Your task to perform on an android device: Search for the best rated kitchen reno kits on Lowes.com Image 0: 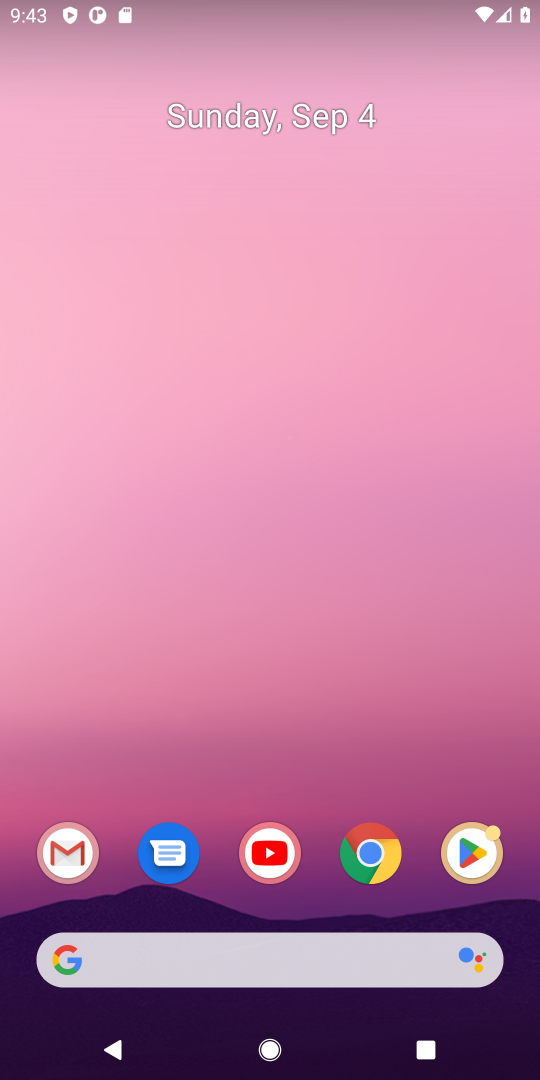
Step 0: click (374, 866)
Your task to perform on an android device: Search for the best rated kitchen reno kits on Lowes.com Image 1: 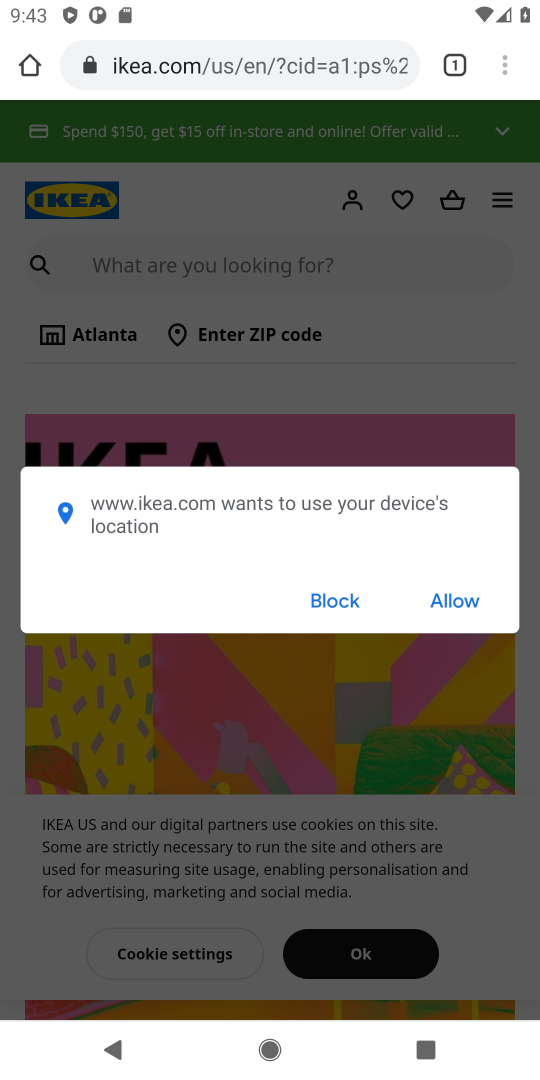
Step 1: click (172, 69)
Your task to perform on an android device: Search for the best rated kitchen reno kits on Lowes.com Image 2: 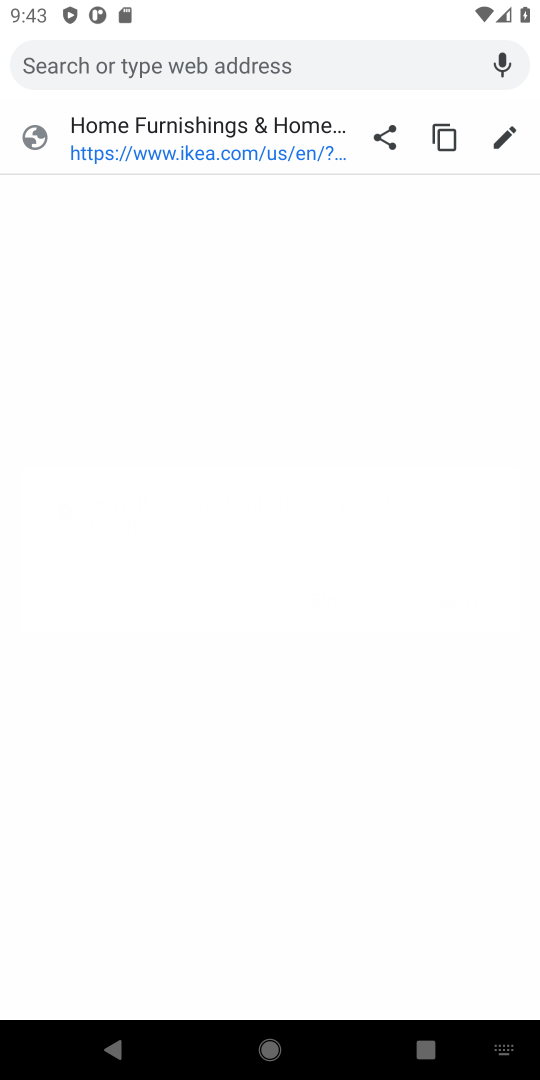
Step 2: type "Lowes.com"
Your task to perform on an android device: Search for the best rated kitchen reno kits on Lowes.com Image 3: 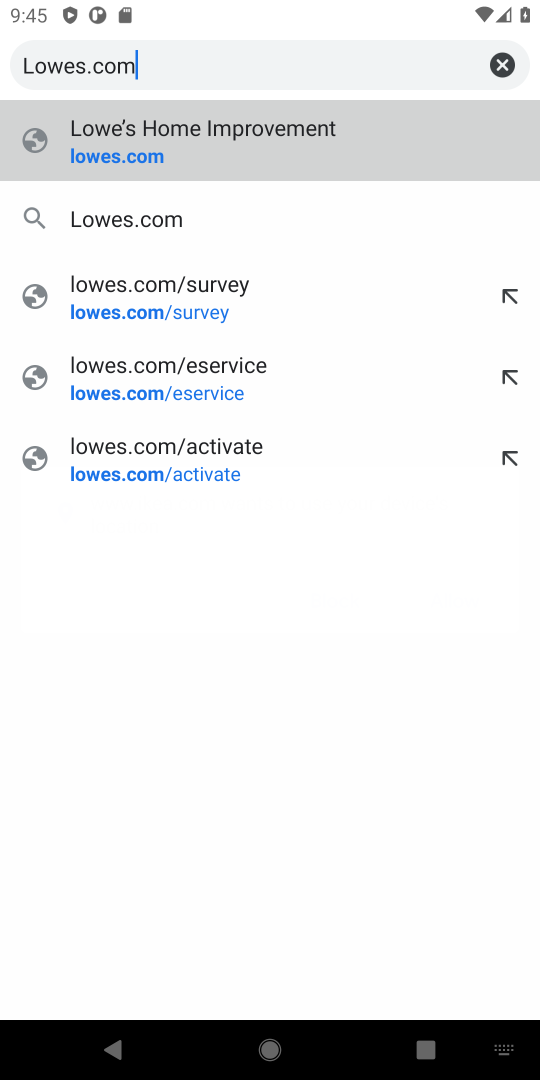
Step 3: click (230, 159)
Your task to perform on an android device: Search for the best rated kitchen reno kits on Lowes.com Image 4: 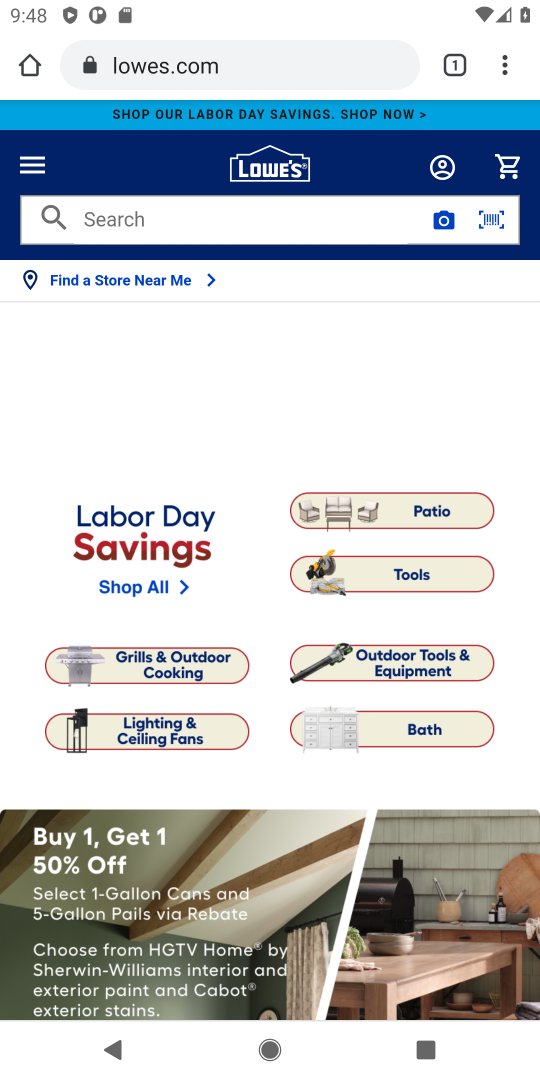
Step 4: click (327, 213)
Your task to perform on an android device: Search for the best rated kitchen reno kits on Lowes.com Image 5: 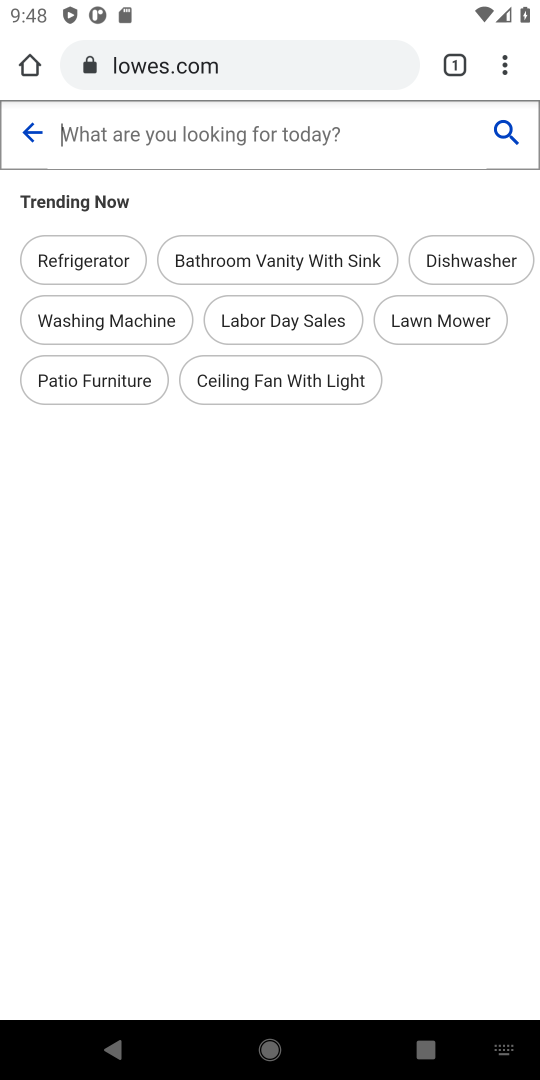
Step 5: type "kitchen reno kits"
Your task to perform on an android device: Search for the best rated kitchen reno kits on Lowes.com Image 6: 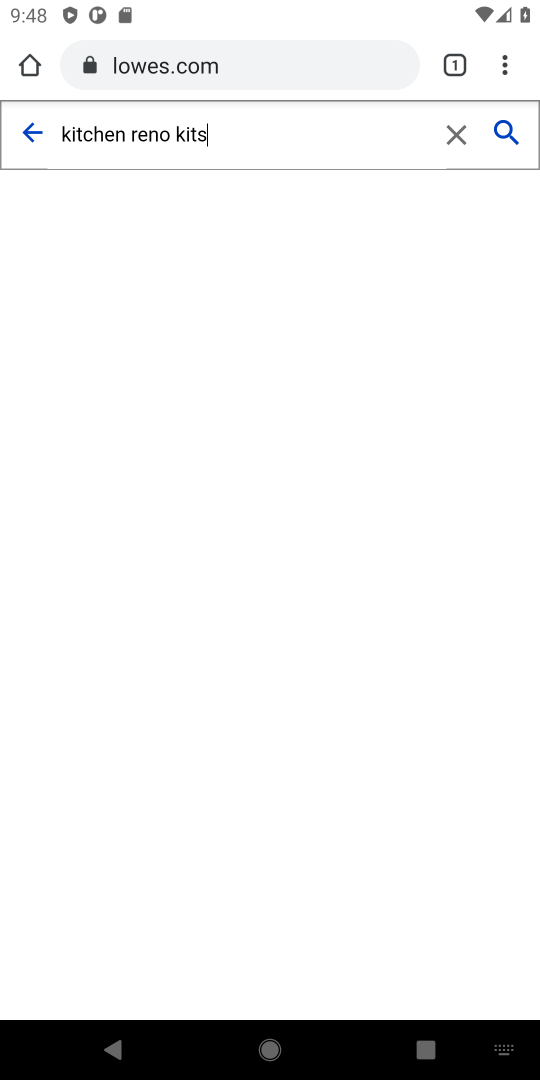
Step 6: task complete